Your task to perform on an android device: refresh tabs in the chrome app Image 0: 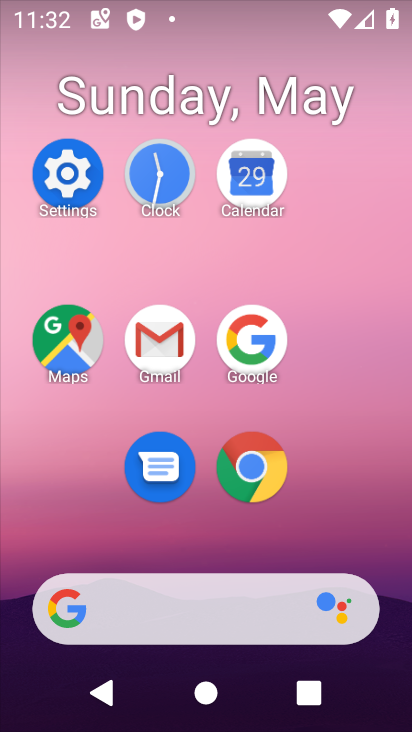
Step 0: click (255, 465)
Your task to perform on an android device: refresh tabs in the chrome app Image 1: 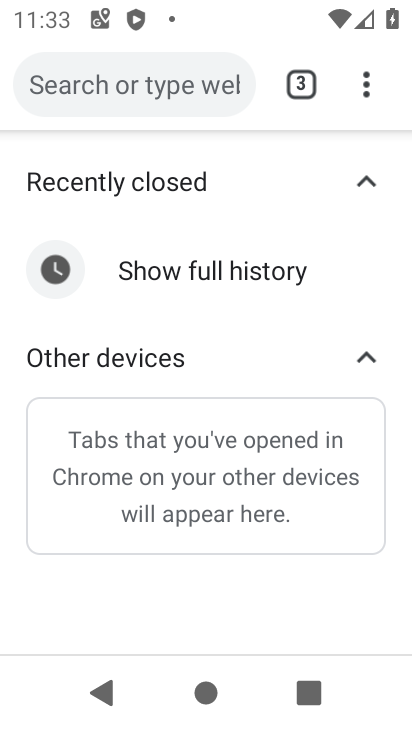
Step 1: click (363, 85)
Your task to perform on an android device: refresh tabs in the chrome app Image 2: 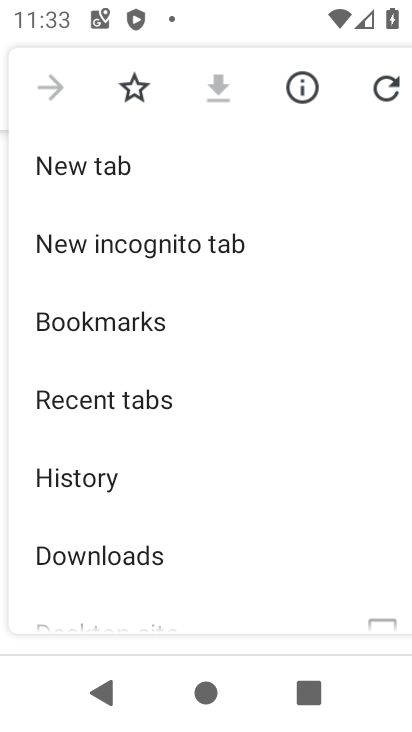
Step 2: click (371, 94)
Your task to perform on an android device: refresh tabs in the chrome app Image 3: 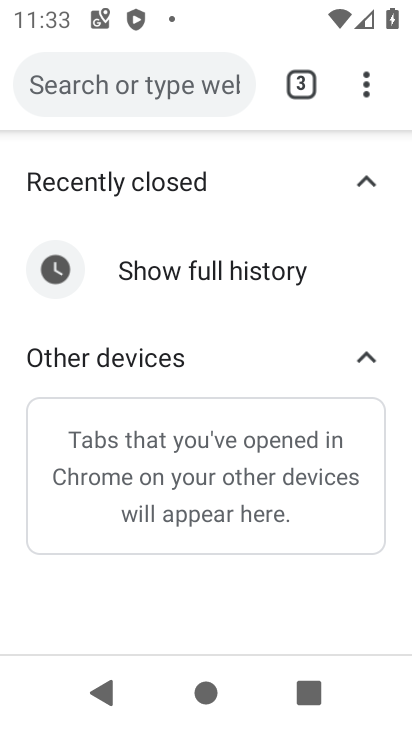
Step 3: task complete